Your task to perform on an android device: Open Google Chrome and click the shortcut for Amazon.com Image 0: 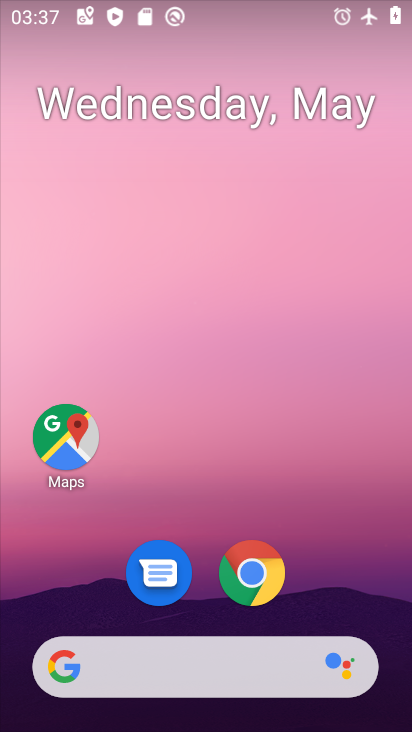
Step 0: click (248, 581)
Your task to perform on an android device: Open Google Chrome and click the shortcut for Amazon.com Image 1: 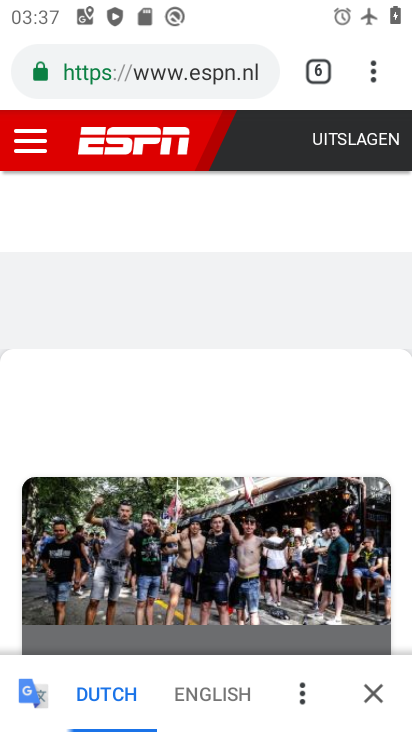
Step 1: click (374, 79)
Your task to perform on an android device: Open Google Chrome and click the shortcut for Amazon.com Image 2: 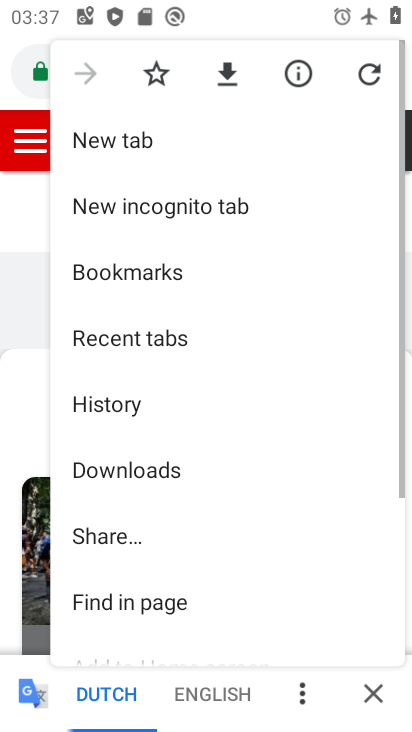
Step 2: click (109, 145)
Your task to perform on an android device: Open Google Chrome and click the shortcut for Amazon.com Image 3: 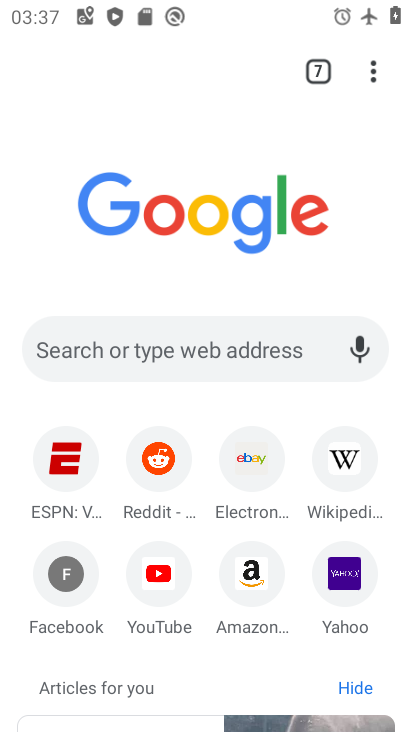
Step 3: click (251, 589)
Your task to perform on an android device: Open Google Chrome and click the shortcut for Amazon.com Image 4: 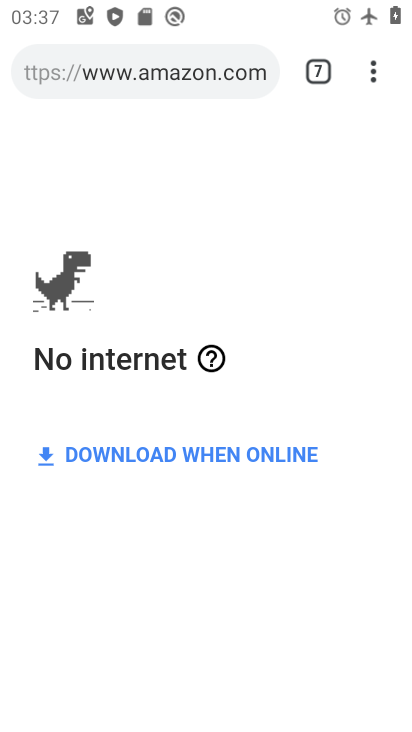
Step 4: task complete